Your task to perform on an android device: turn on improve location accuracy Image 0: 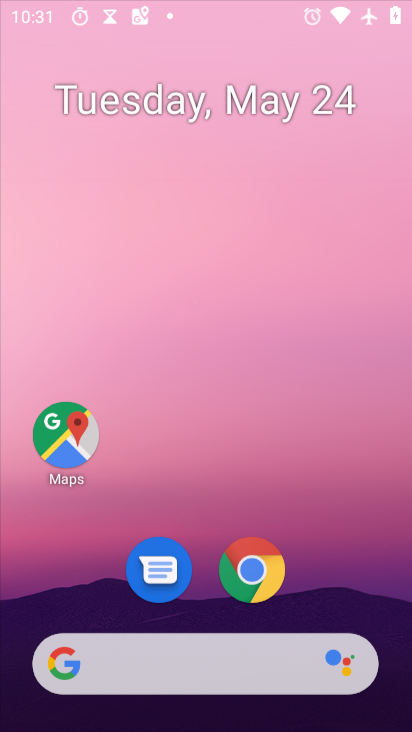
Step 0: drag from (365, 486) to (274, 17)
Your task to perform on an android device: turn on improve location accuracy Image 1: 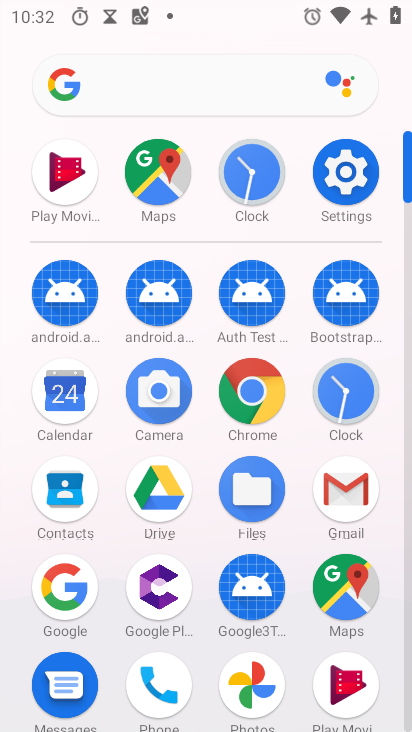
Step 1: click (344, 179)
Your task to perform on an android device: turn on improve location accuracy Image 2: 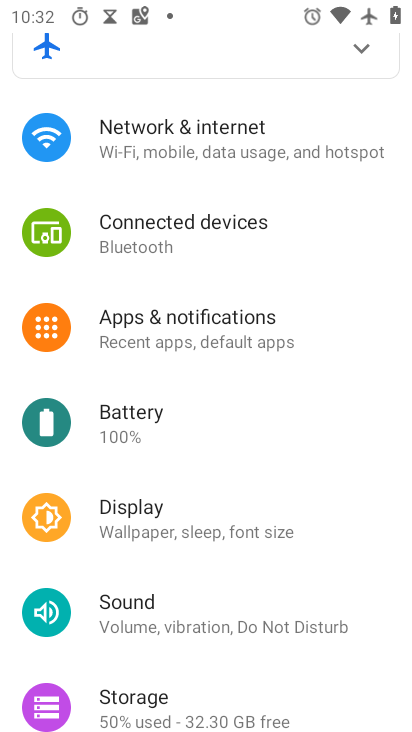
Step 2: drag from (253, 656) to (151, 190)
Your task to perform on an android device: turn on improve location accuracy Image 3: 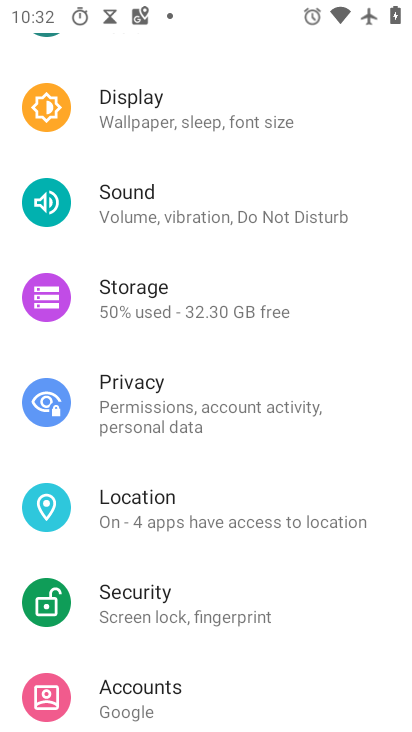
Step 3: click (211, 520)
Your task to perform on an android device: turn on improve location accuracy Image 4: 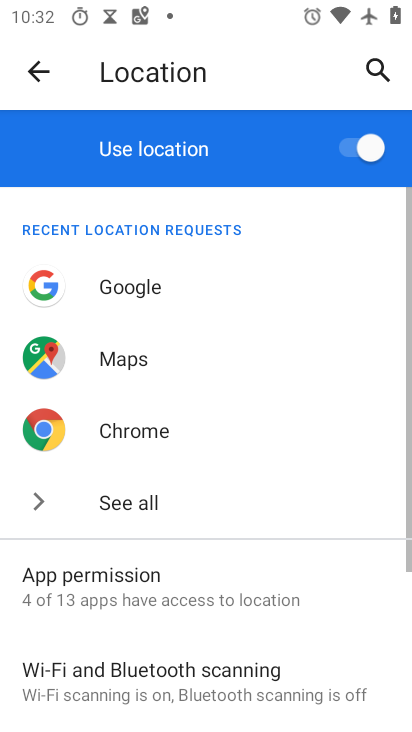
Step 4: drag from (249, 676) to (214, 229)
Your task to perform on an android device: turn on improve location accuracy Image 5: 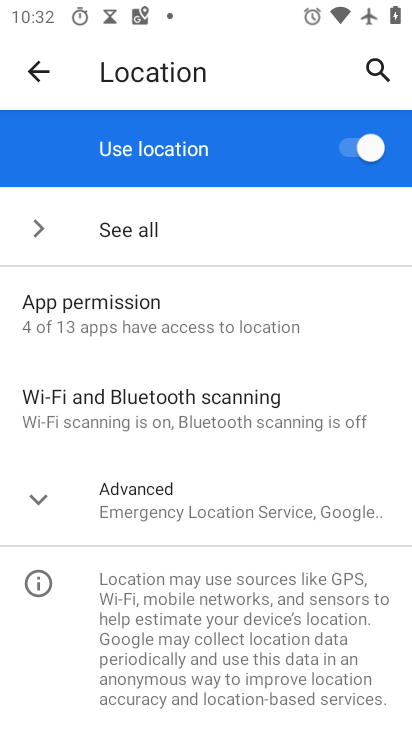
Step 5: click (177, 497)
Your task to perform on an android device: turn on improve location accuracy Image 6: 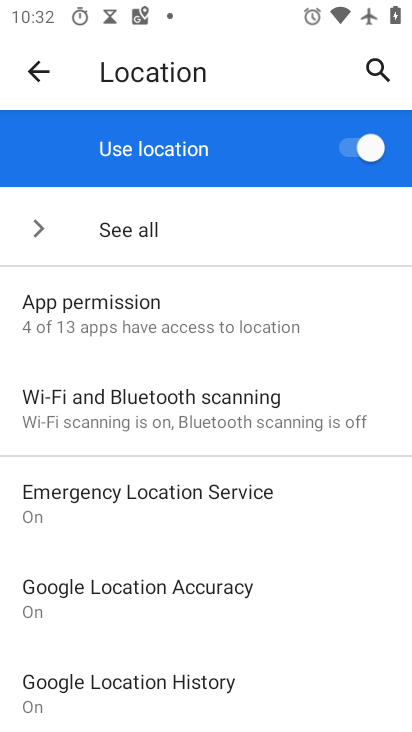
Step 6: drag from (283, 686) to (317, 172)
Your task to perform on an android device: turn on improve location accuracy Image 7: 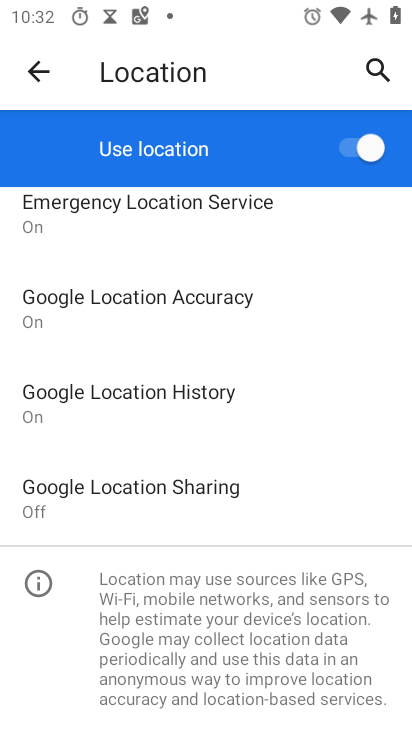
Step 7: click (241, 302)
Your task to perform on an android device: turn on improve location accuracy Image 8: 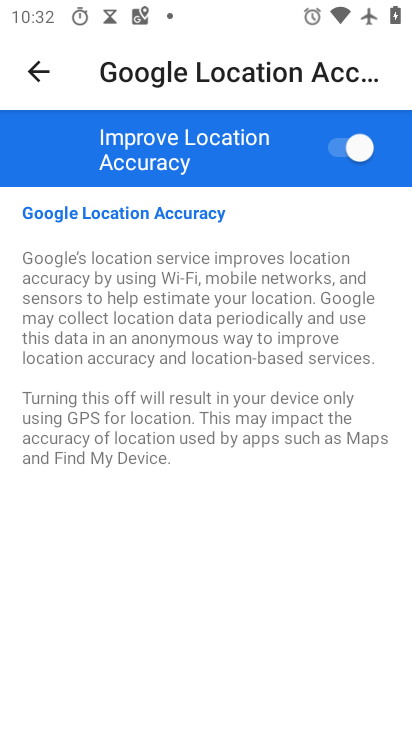
Step 8: task complete